Your task to perform on an android device: Open CNN.com Image 0: 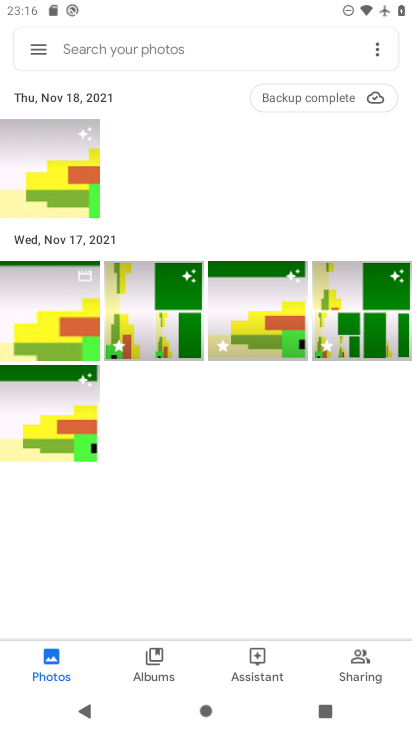
Step 0: press home button
Your task to perform on an android device: Open CNN.com Image 1: 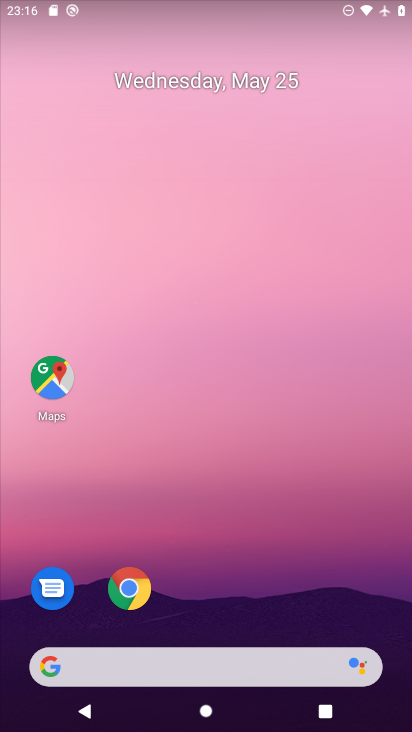
Step 1: drag from (294, 515) to (247, 162)
Your task to perform on an android device: Open CNN.com Image 2: 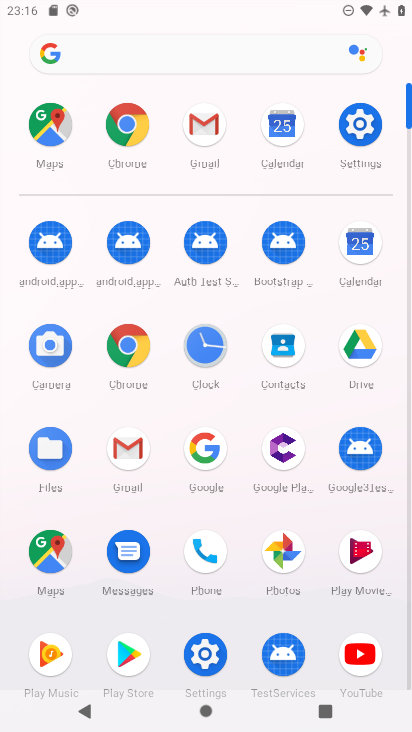
Step 2: click (137, 127)
Your task to perform on an android device: Open CNN.com Image 3: 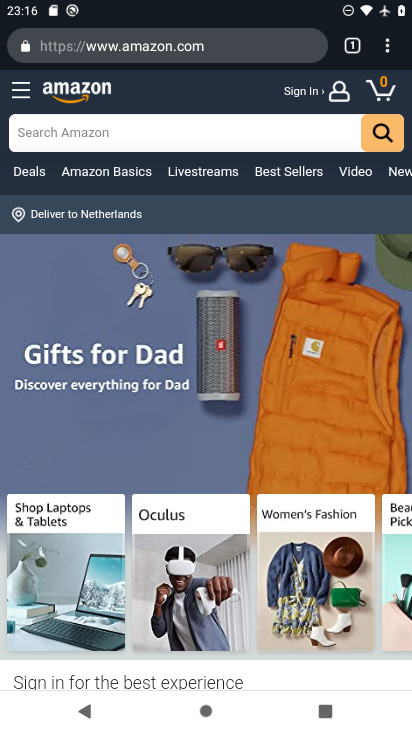
Step 3: click (218, 43)
Your task to perform on an android device: Open CNN.com Image 4: 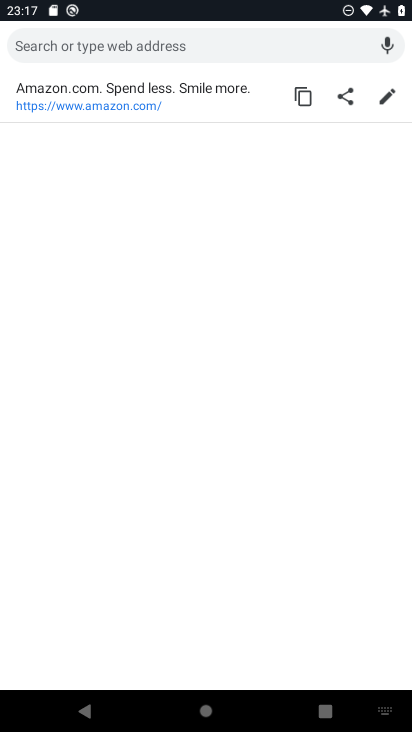
Step 4: type "cnn.com"
Your task to perform on an android device: Open CNN.com Image 5: 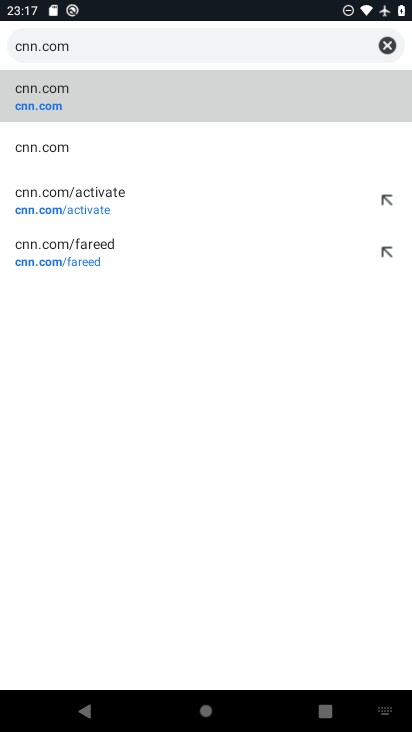
Step 5: click (39, 105)
Your task to perform on an android device: Open CNN.com Image 6: 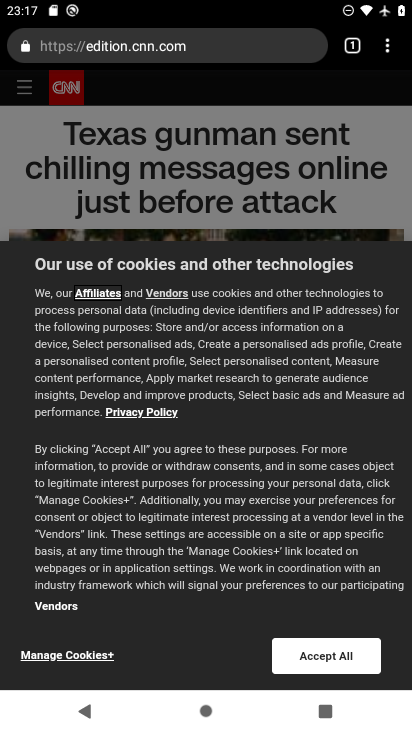
Step 6: task complete